Your task to perform on an android device: see tabs open on other devices in the chrome app Image 0: 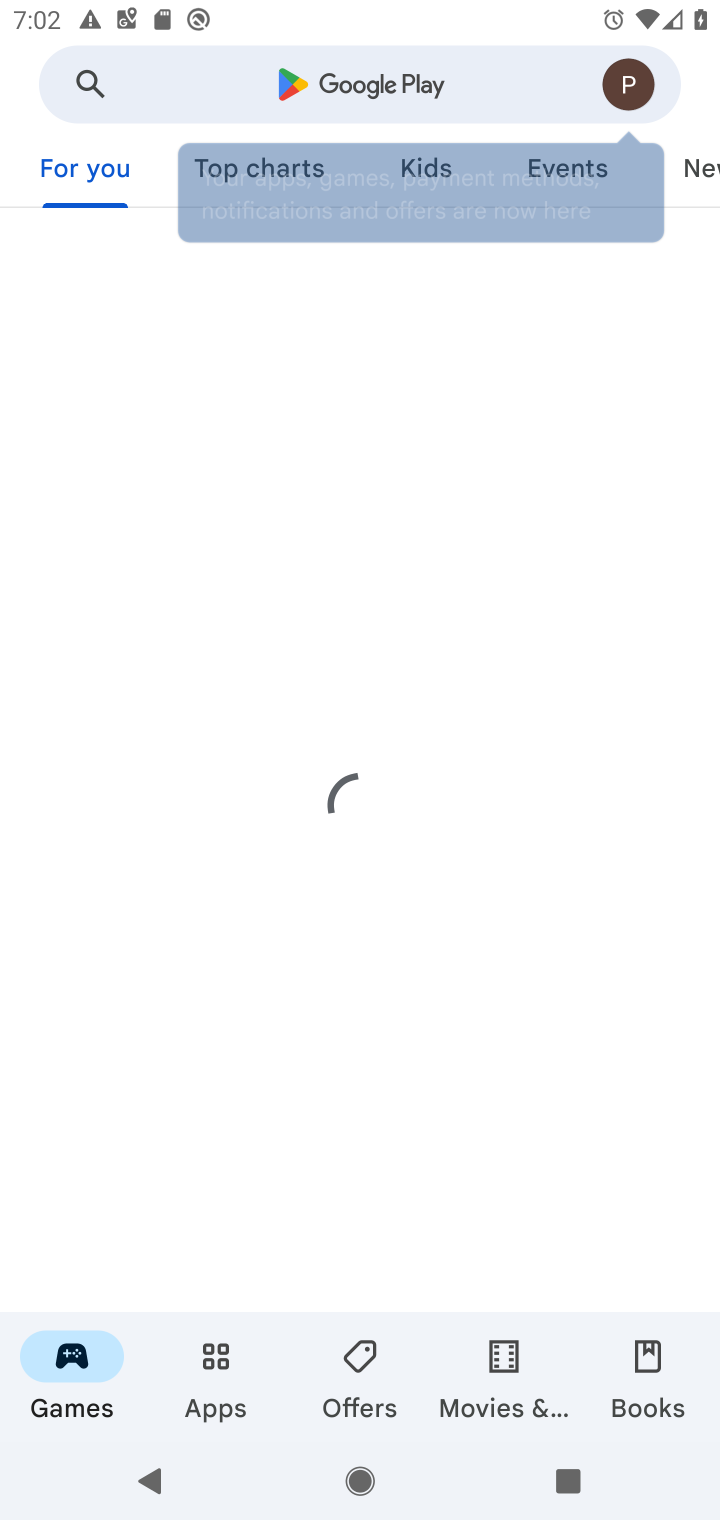
Step 0: press home button
Your task to perform on an android device: see tabs open on other devices in the chrome app Image 1: 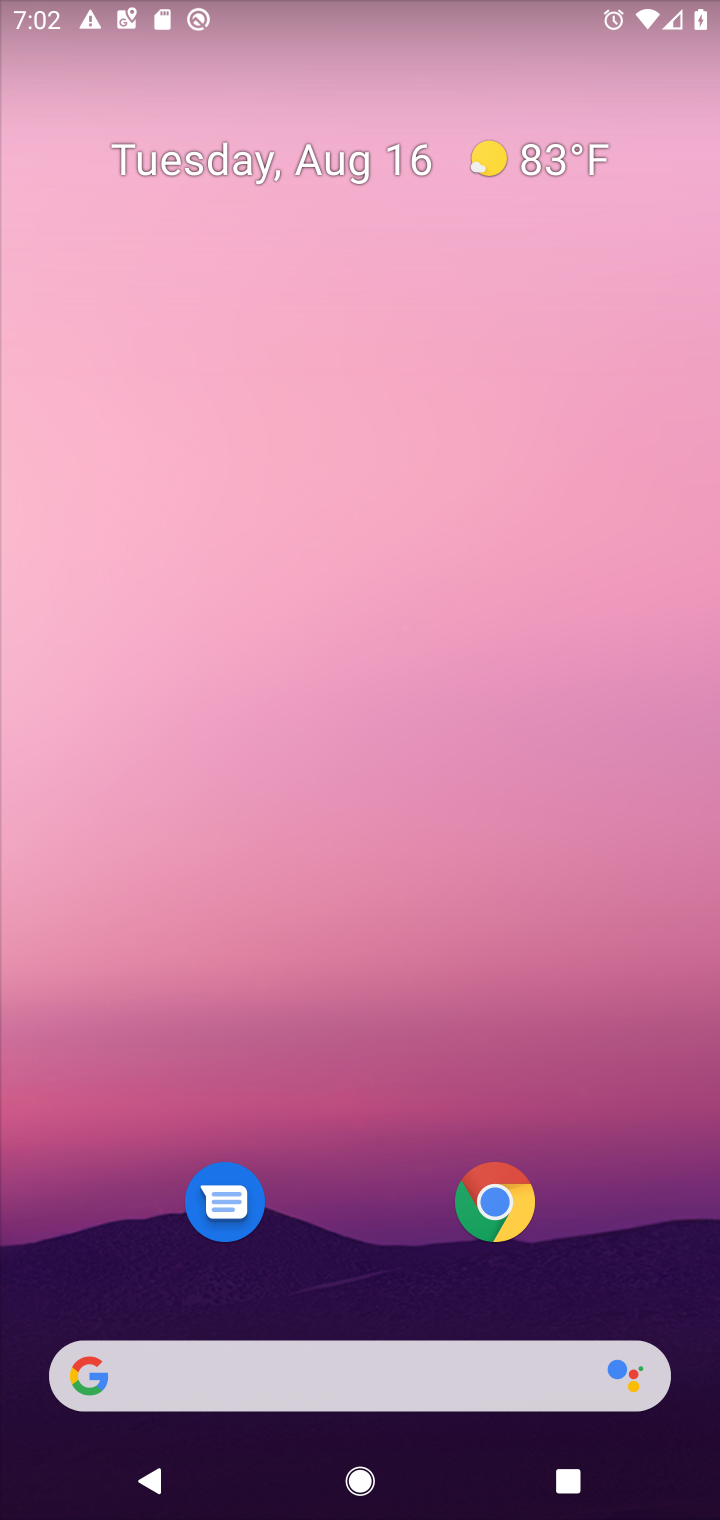
Step 1: drag from (664, 1299) to (464, 204)
Your task to perform on an android device: see tabs open on other devices in the chrome app Image 2: 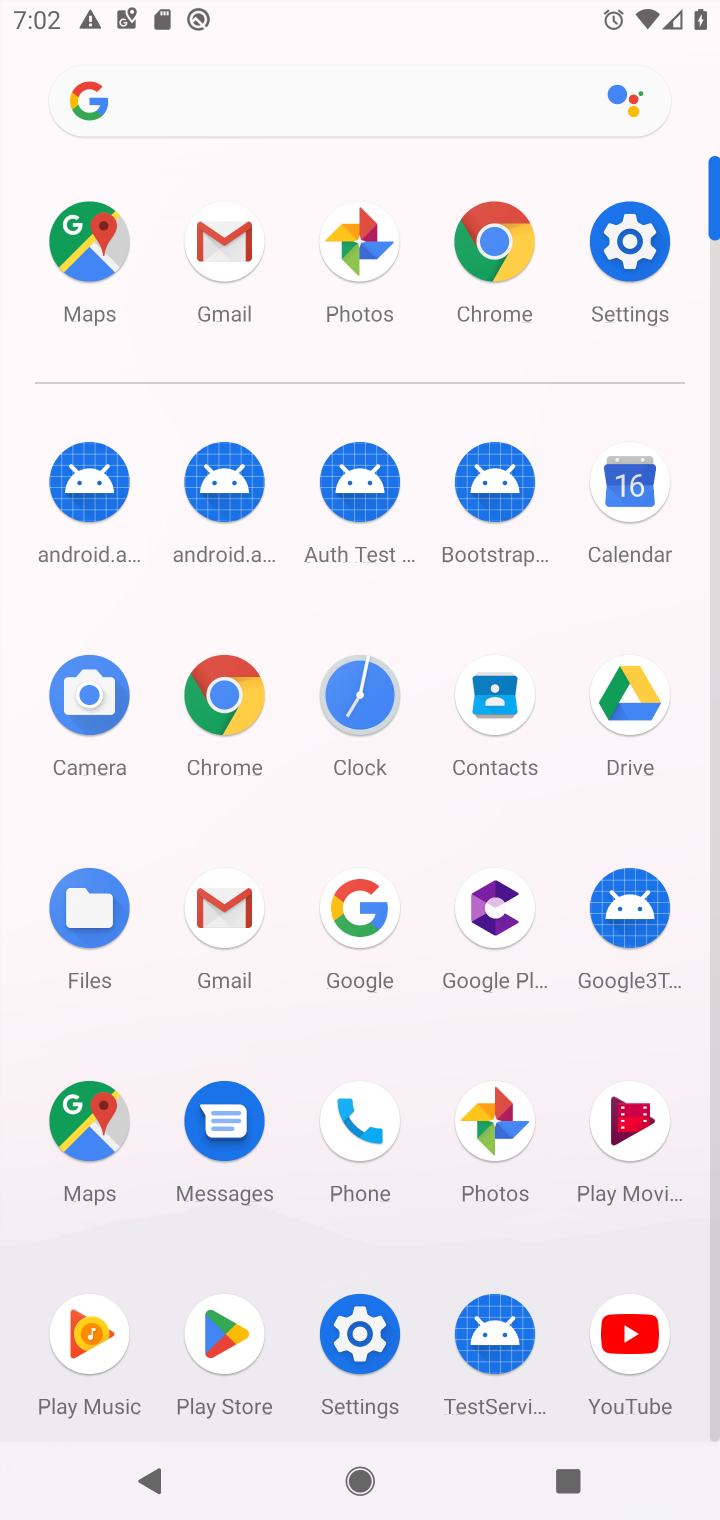
Step 2: click (494, 248)
Your task to perform on an android device: see tabs open on other devices in the chrome app Image 3: 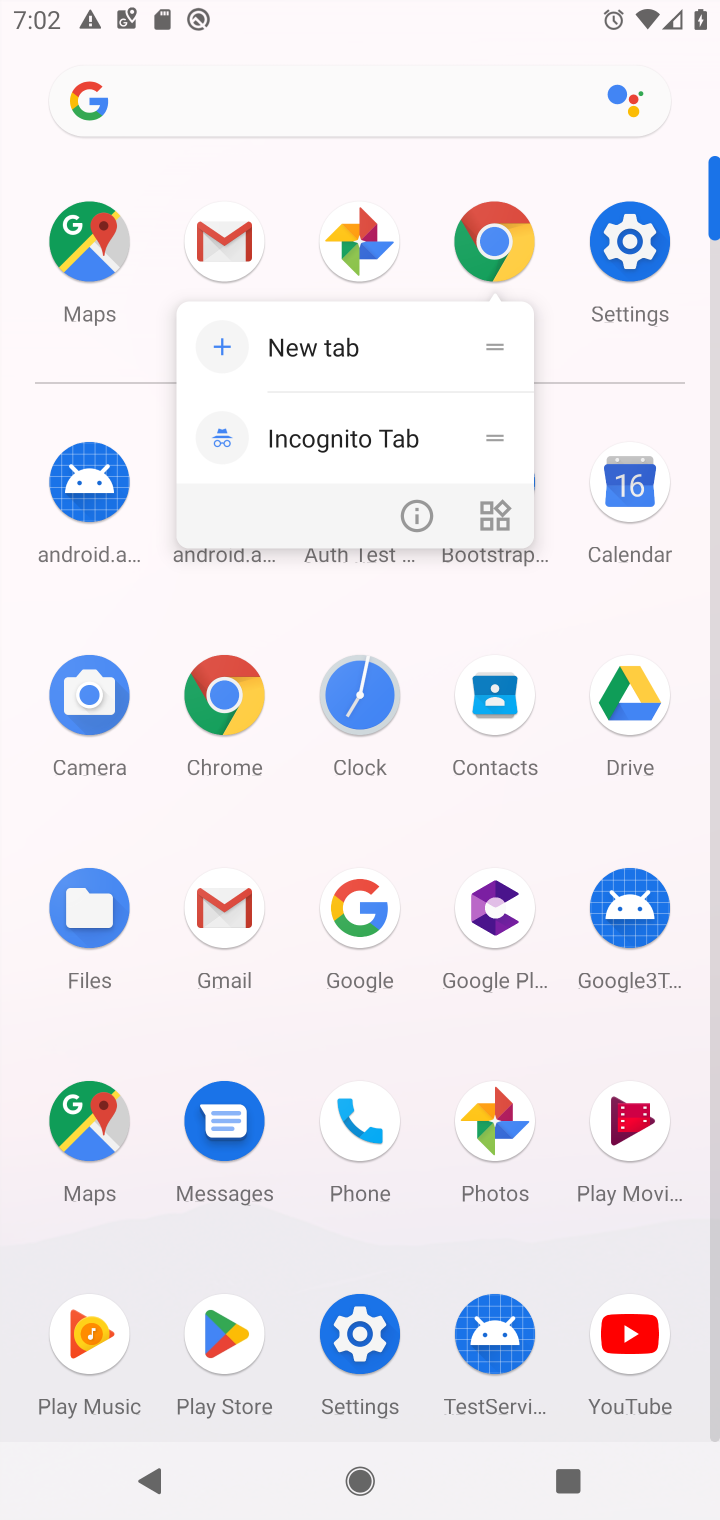
Step 3: click (494, 248)
Your task to perform on an android device: see tabs open on other devices in the chrome app Image 4: 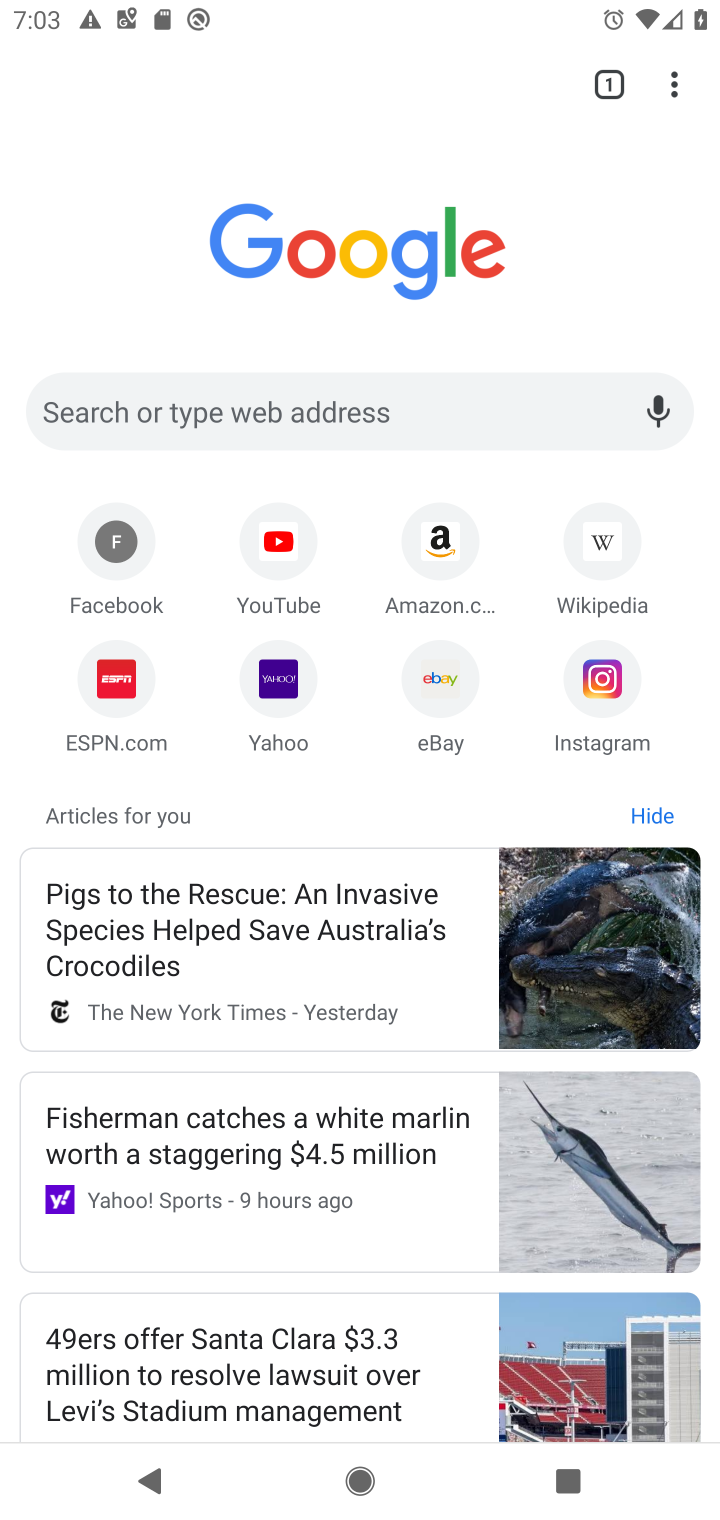
Step 4: task complete